Your task to perform on an android device: turn off translation in the chrome app Image 0: 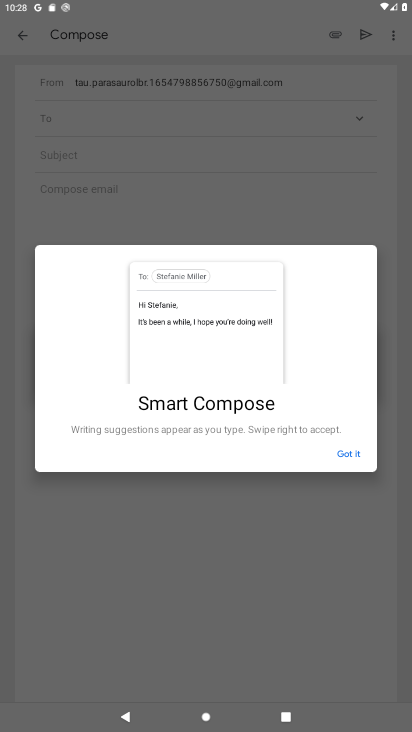
Step 0: press home button
Your task to perform on an android device: turn off translation in the chrome app Image 1: 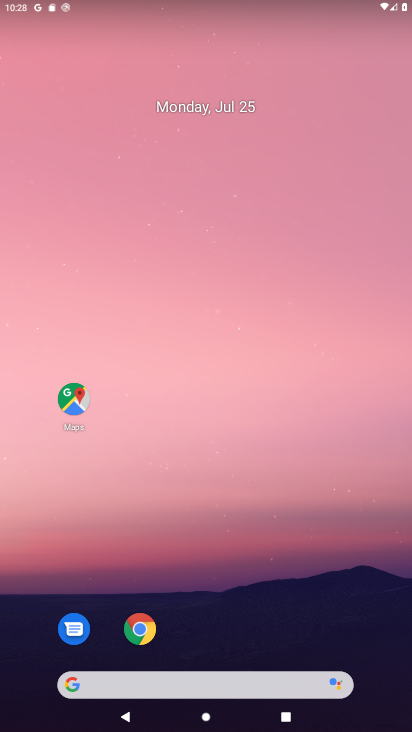
Step 1: click (147, 627)
Your task to perform on an android device: turn off translation in the chrome app Image 2: 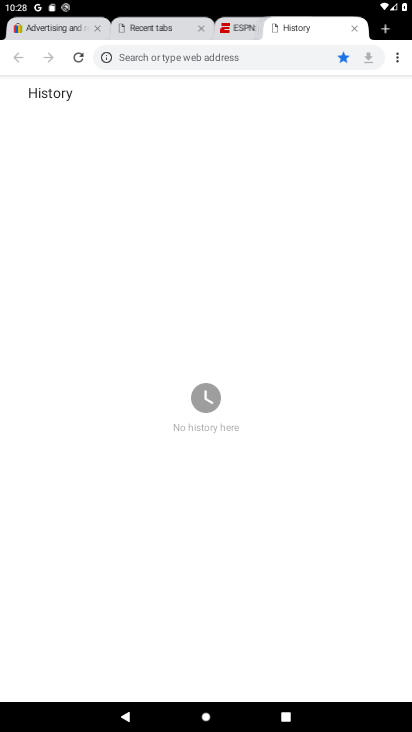
Step 2: click (406, 60)
Your task to perform on an android device: turn off translation in the chrome app Image 3: 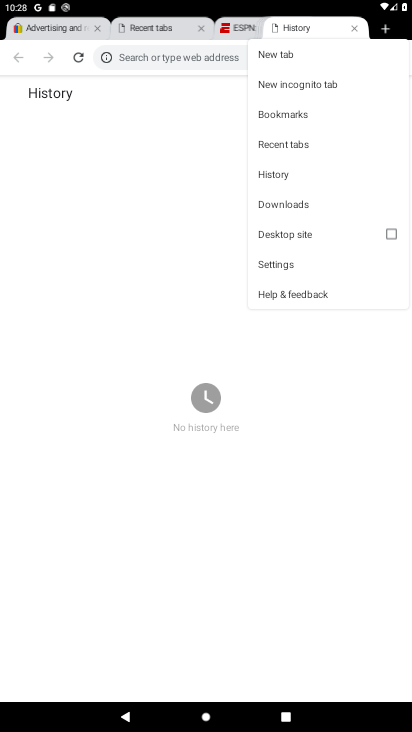
Step 3: click (306, 272)
Your task to perform on an android device: turn off translation in the chrome app Image 4: 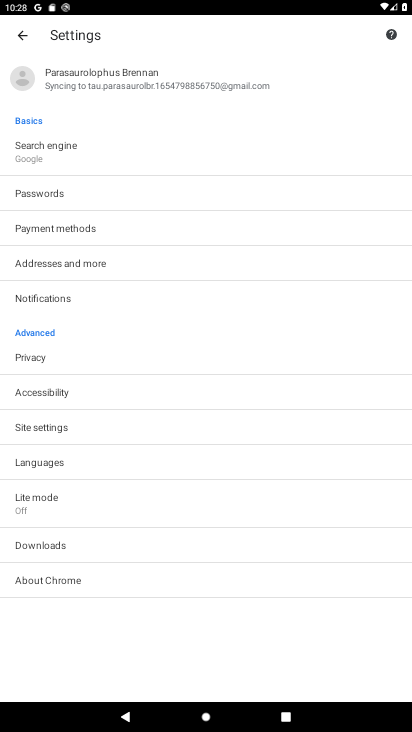
Step 4: click (110, 467)
Your task to perform on an android device: turn off translation in the chrome app Image 5: 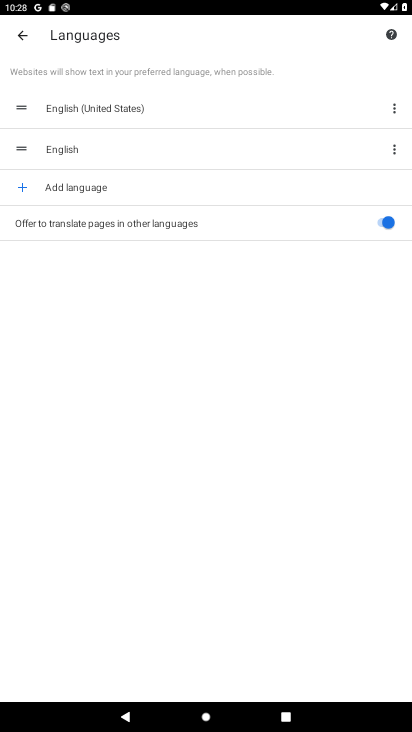
Step 5: click (391, 219)
Your task to perform on an android device: turn off translation in the chrome app Image 6: 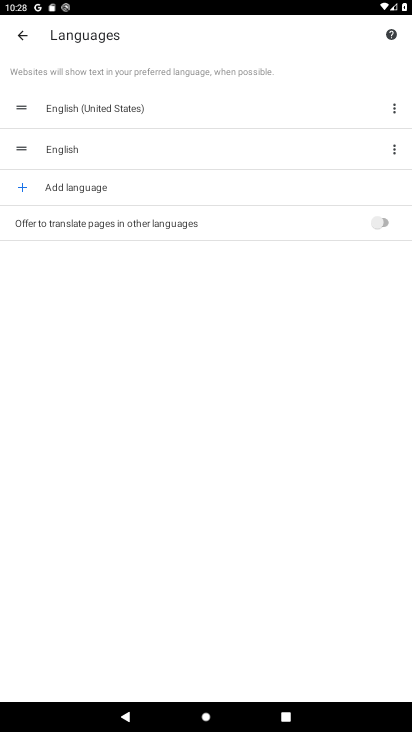
Step 6: task complete